Your task to perform on an android device: open a bookmark in the chrome app Image 0: 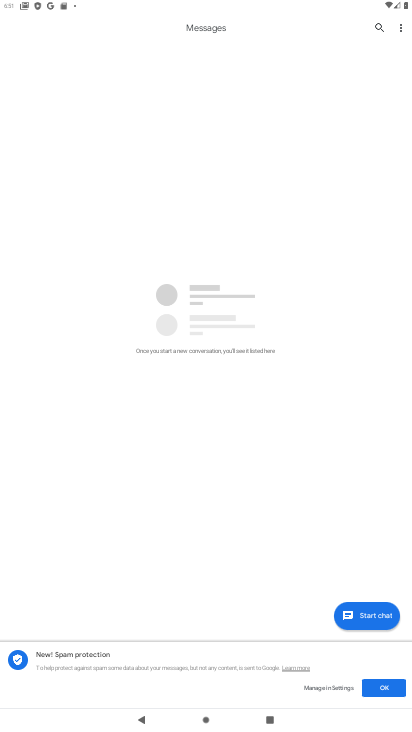
Step 0: press home button
Your task to perform on an android device: open a bookmark in the chrome app Image 1: 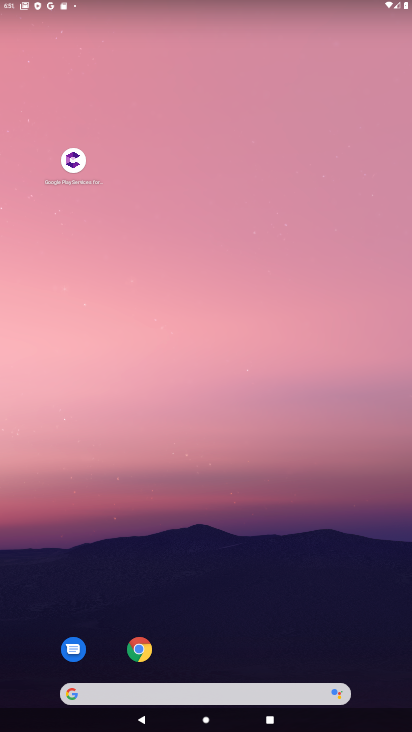
Step 1: drag from (282, 484) to (358, 55)
Your task to perform on an android device: open a bookmark in the chrome app Image 2: 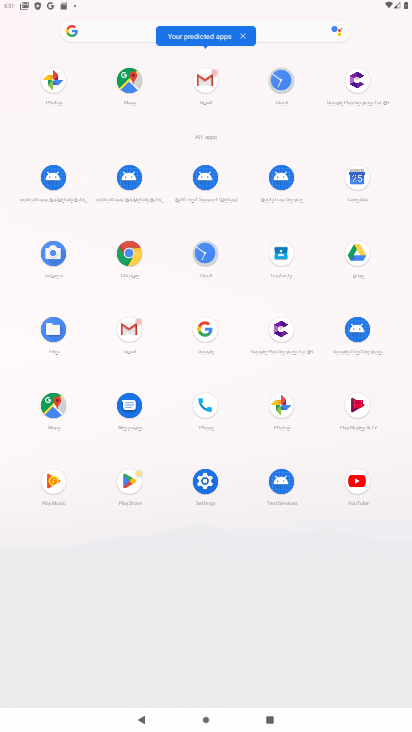
Step 2: click (128, 249)
Your task to perform on an android device: open a bookmark in the chrome app Image 3: 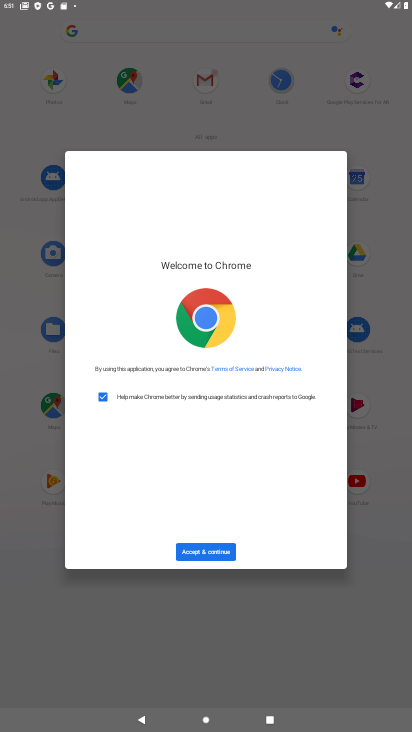
Step 3: click (190, 551)
Your task to perform on an android device: open a bookmark in the chrome app Image 4: 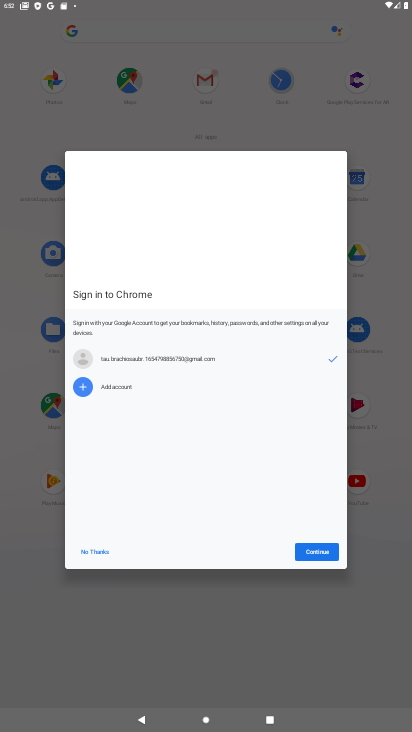
Step 4: click (93, 556)
Your task to perform on an android device: open a bookmark in the chrome app Image 5: 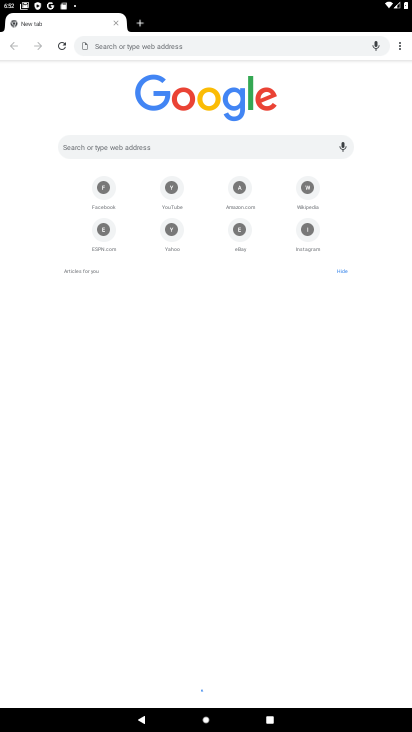
Step 5: drag from (401, 43) to (330, 94)
Your task to perform on an android device: open a bookmark in the chrome app Image 6: 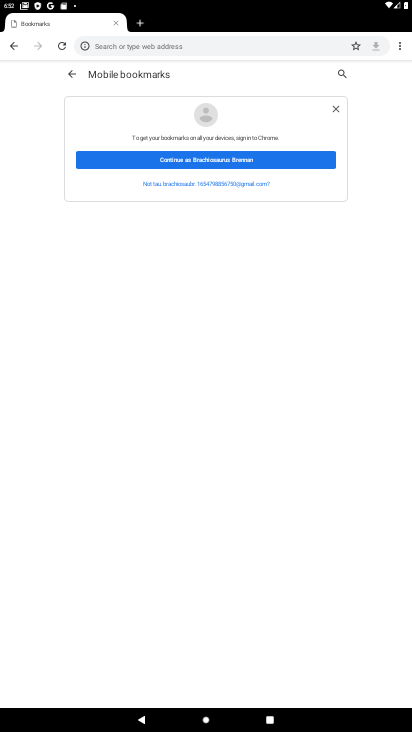
Step 6: click (219, 153)
Your task to perform on an android device: open a bookmark in the chrome app Image 7: 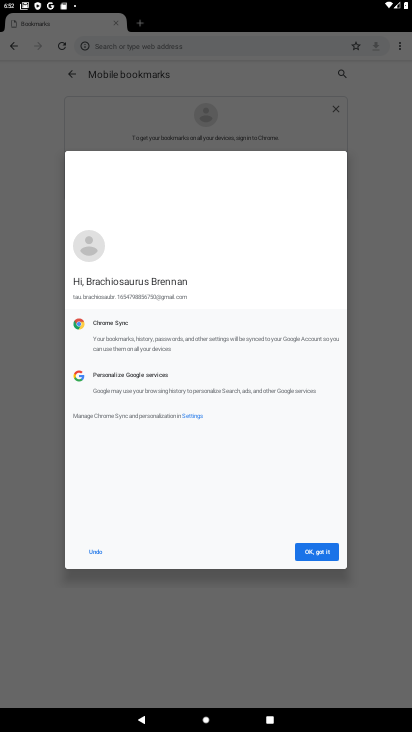
Step 7: click (300, 548)
Your task to perform on an android device: open a bookmark in the chrome app Image 8: 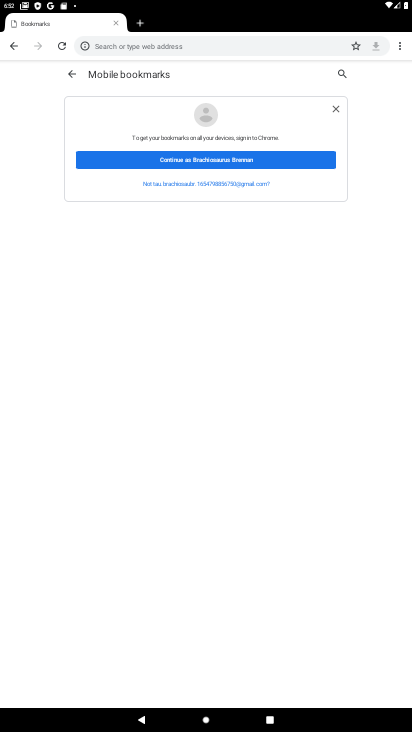
Step 8: click (189, 162)
Your task to perform on an android device: open a bookmark in the chrome app Image 9: 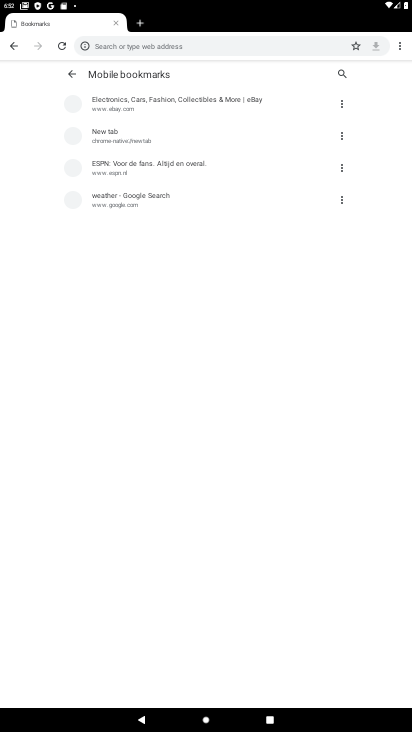
Step 9: task complete